Your task to perform on an android device: Go to Google maps Image 0: 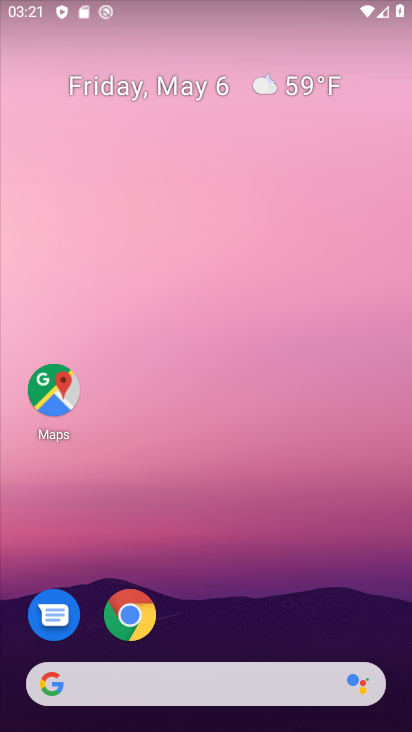
Step 0: drag from (367, 610) to (95, 121)
Your task to perform on an android device: Go to Google maps Image 1: 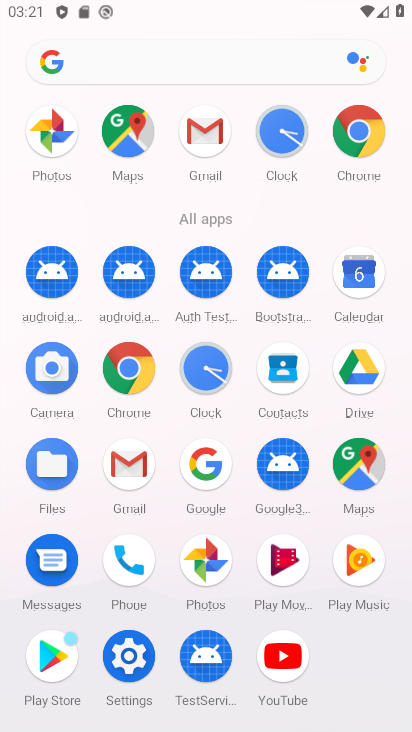
Step 1: click (124, 129)
Your task to perform on an android device: Go to Google maps Image 2: 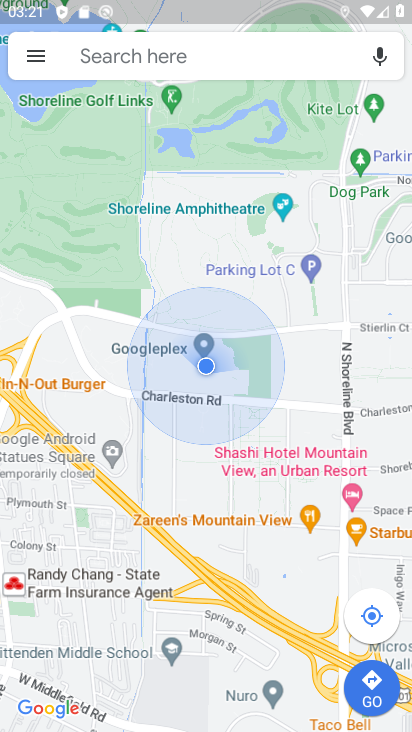
Step 2: click (63, 57)
Your task to perform on an android device: Go to Google maps Image 3: 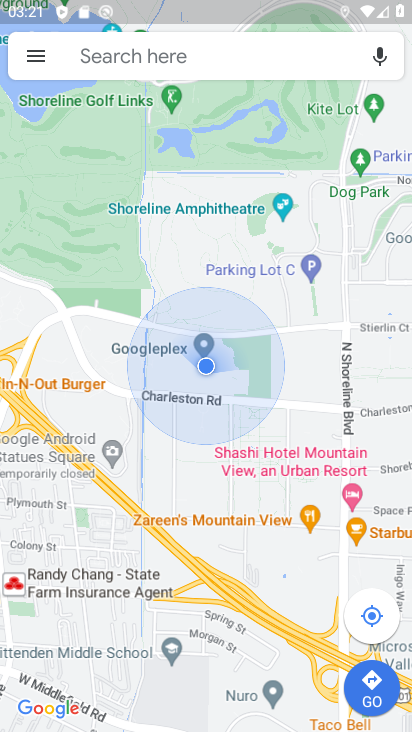
Step 3: click (63, 57)
Your task to perform on an android device: Go to Google maps Image 4: 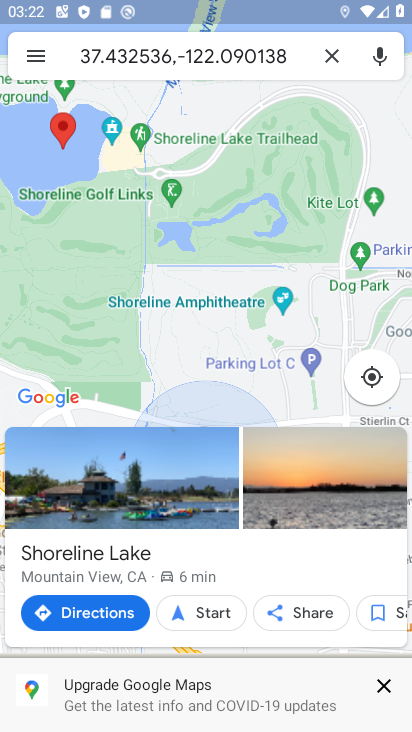
Step 4: task complete